Your task to perform on an android device: Open Google Chrome and open the bookmarks view Image 0: 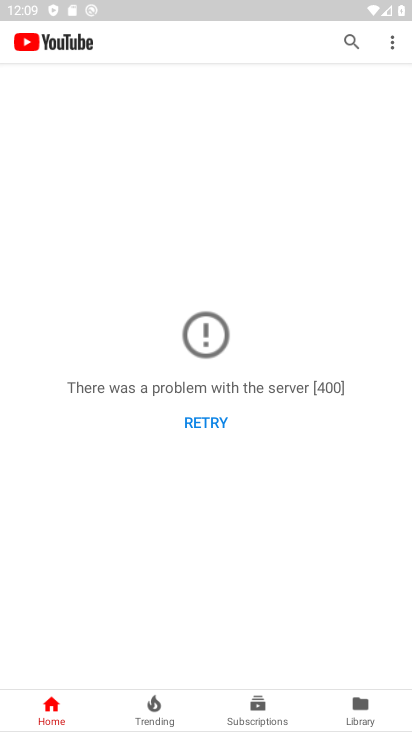
Step 0: press home button
Your task to perform on an android device: Open Google Chrome and open the bookmarks view Image 1: 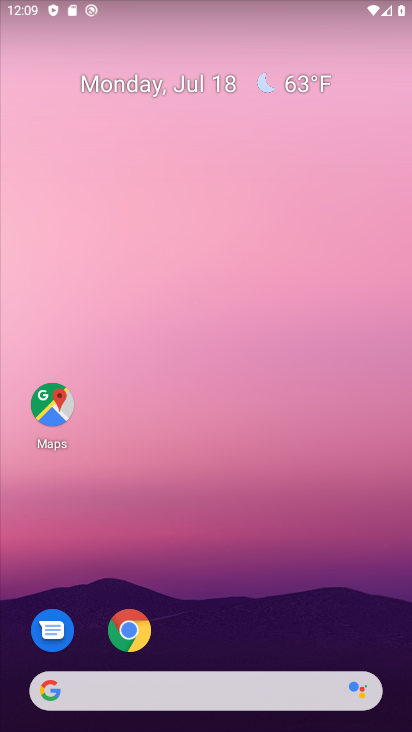
Step 1: drag from (193, 649) to (219, 135)
Your task to perform on an android device: Open Google Chrome and open the bookmarks view Image 2: 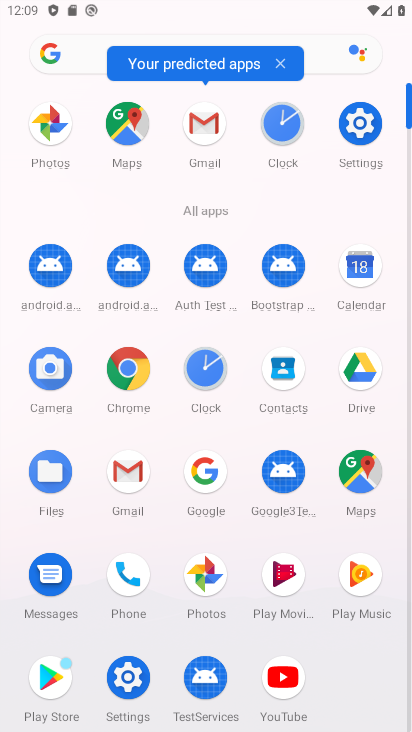
Step 2: click (118, 372)
Your task to perform on an android device: Open Google Chrome and open the bookmarks view Image 3: 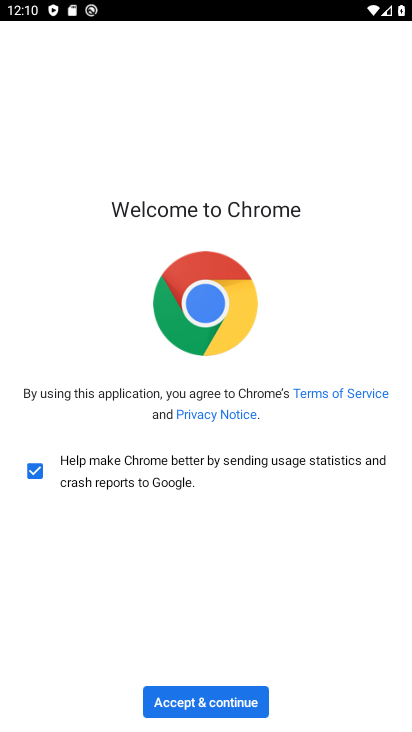
Step 3: click (215, 698)
Your task to perform on an android device: Open Google Chrome and open the bookmarks view Image 4: 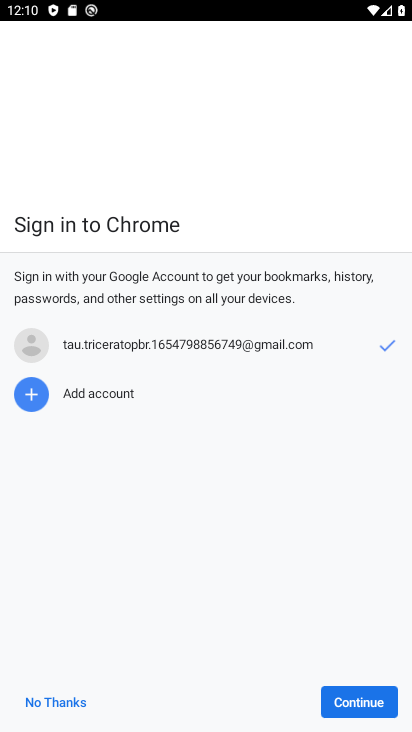
Step 4: click (373, 710)
Your task to perform on an android device: Open Google Chrome and open the bookmarks view Image 5: 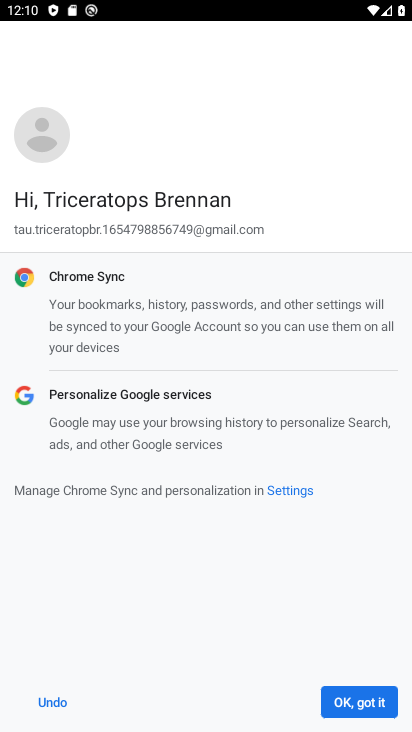
Step 5: click (342, 690)
Your task to perform on an android device: Open Google Chrome and open the bookmarks view Image 6: 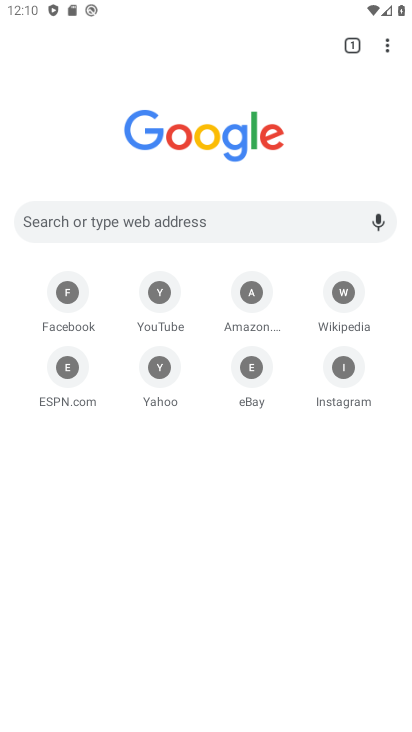
Step 6: task complete